Your task to perform on an android device: empty trash in google photos Image 0: 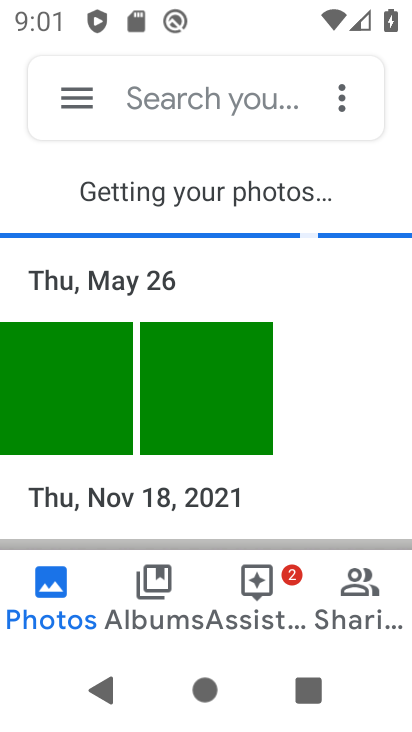
Step 0: click (82, 108)
Your task to perform on an android device: empty trash in google photos Image 1: 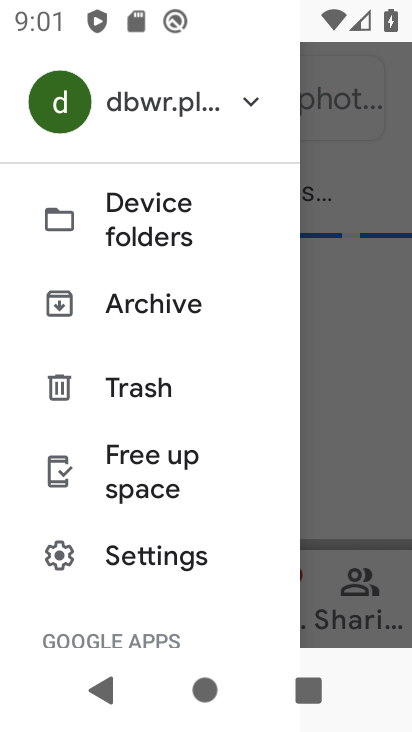
Step 1: click (168, 379)
Your task to perform on an android device: empty trash in google photos Image 2: 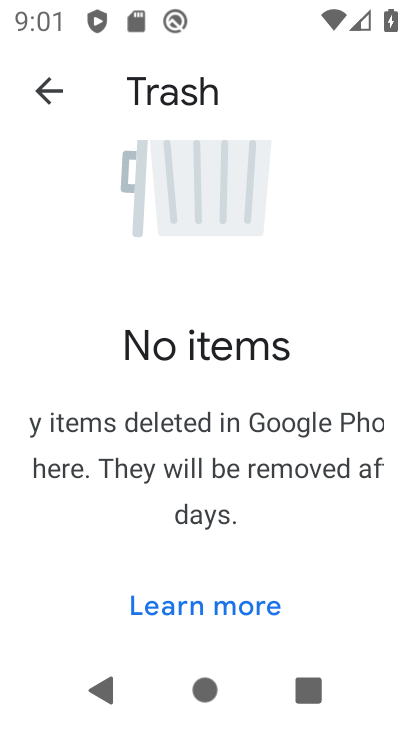
Step 2: task complete